Your task to perform on an android device: clear history in the chrome app Image 0: 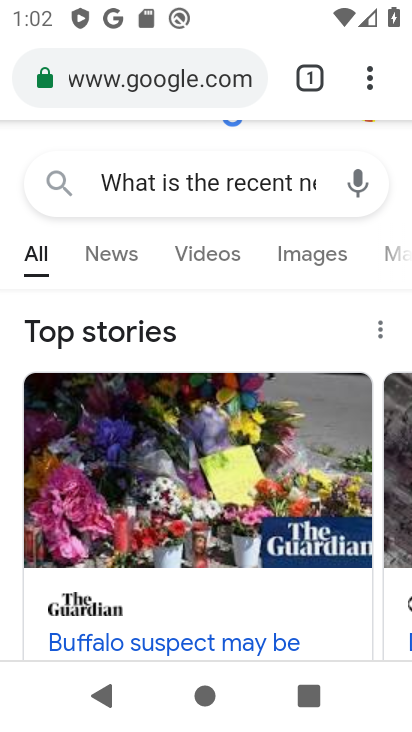
Step 0: press home button
Your task to perform on an android device: clear history in the chrome app Image 1: 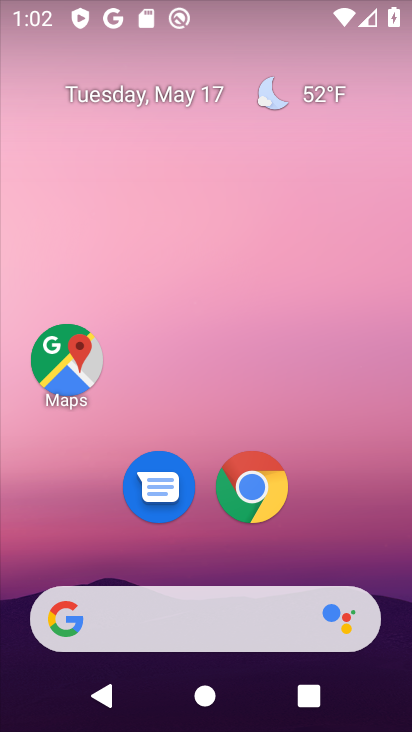
Step 1: click (272, 486)
Your task to perform on an android device: clear history in the chrome app Image 2: 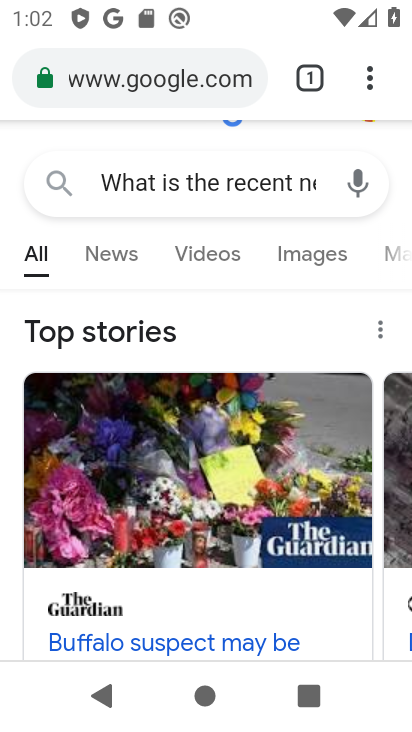
Step 2: drag from (369, 73) to (64, 254)
Your task to perform on an android device: clear history in the chrome app Image 3: 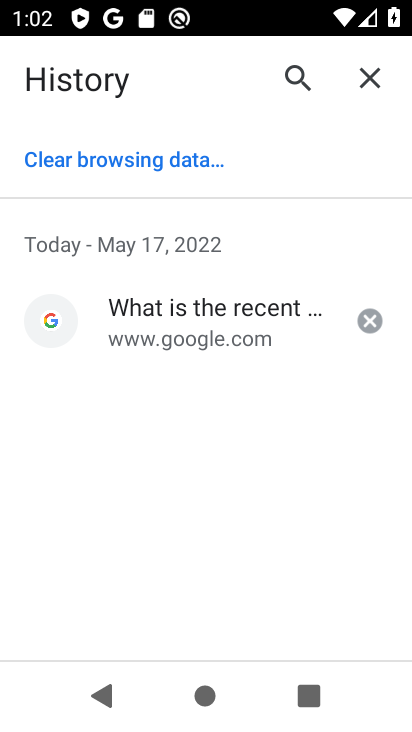
Step 3: click (364, 317)
Your task to perform on an android device: clear history in the chrome app Image 4: 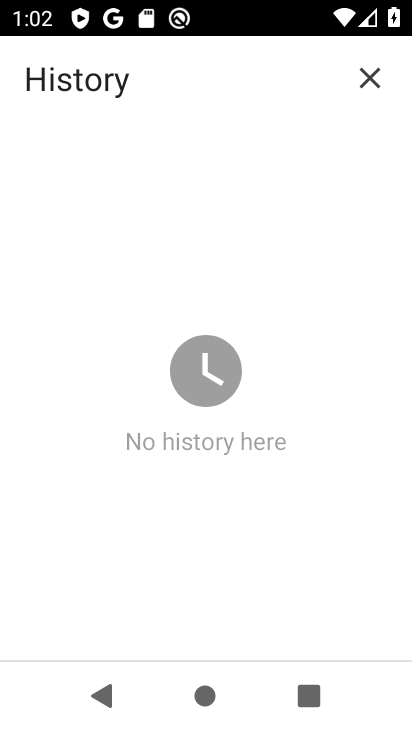
Step 4: task complete